Your task to perform on an android device: change the clock style Image 0: 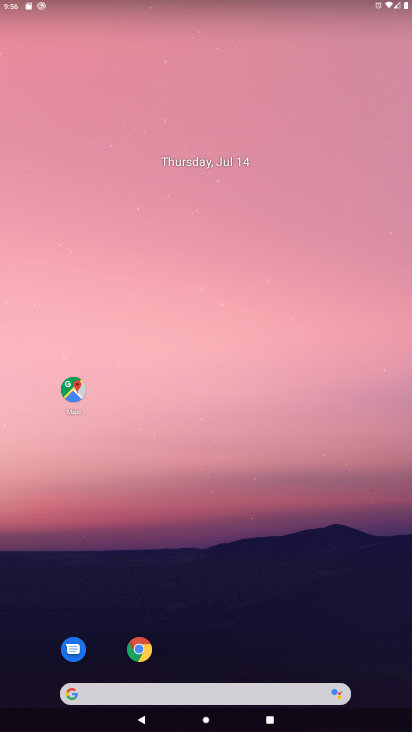
Step 0: drag from (207, 720) to (223, 47)
Your task to perform on an android device: change the clock style Image 1: 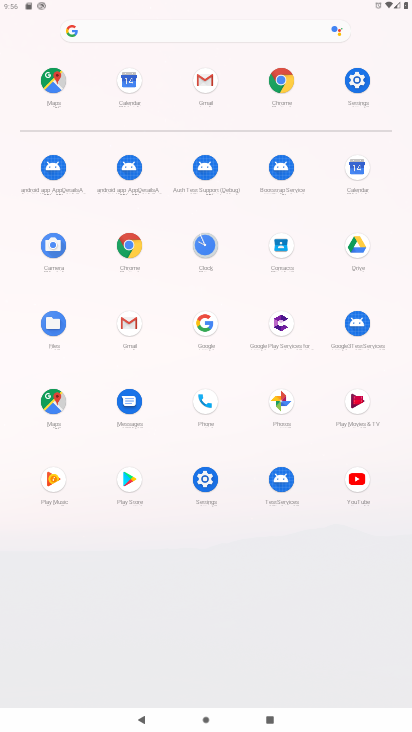
Step 1: click (207, 233)
Your task to perform on an android device: change the clock style Image 2: 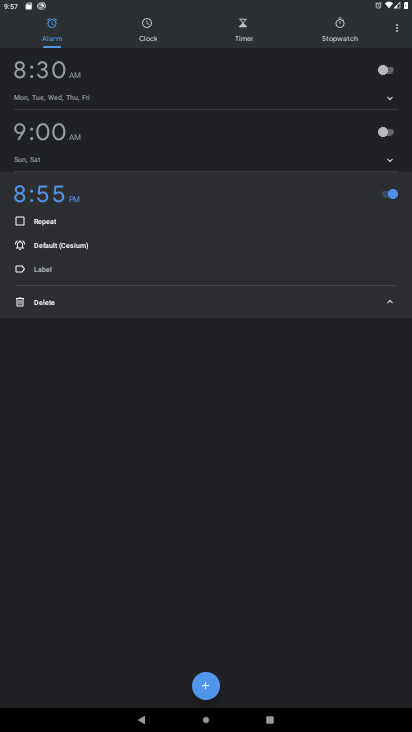
Step 2: click (399, 32)
Your task to perform on an android device: change the clock style Image 3: 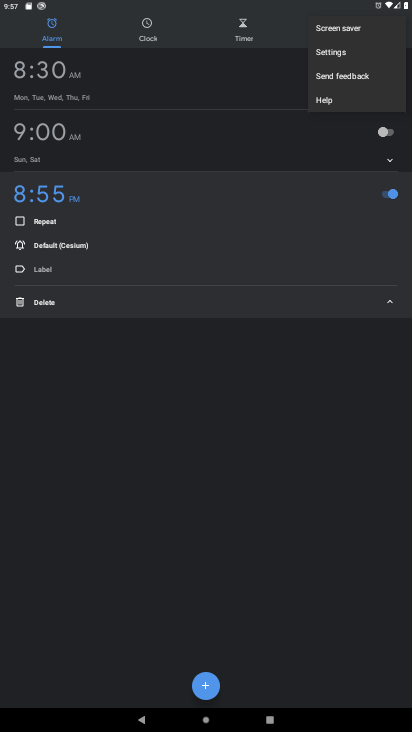
Step 3: click (355, 56)
Your task to perform on an android device: change the clock style Image 4: 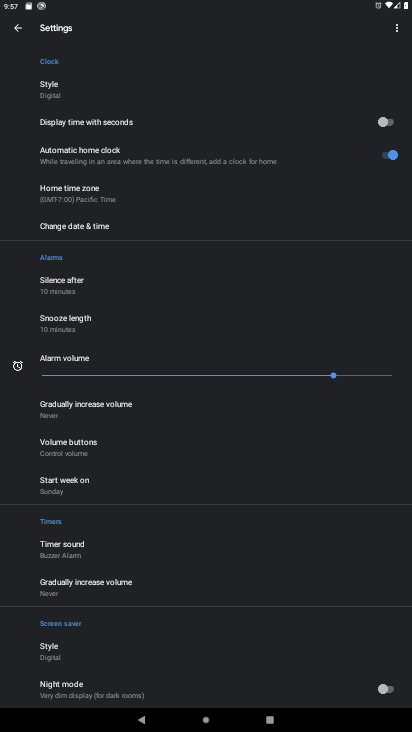
Step 4: click (49, 96)
Your task to perform on an android device: change the clock style Image 5: 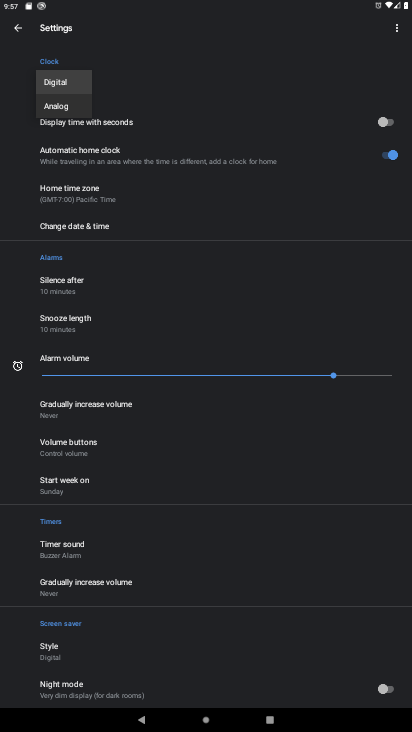
Step 5: click (53, 107)
Your task to perform on an android device: change the clock style Image 6: 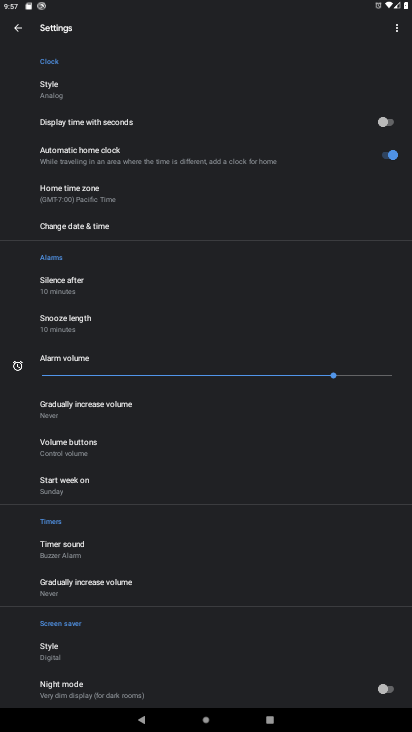
Step 6: task complete